Your task to perform on an android device: Open accessibility settings Image 0: 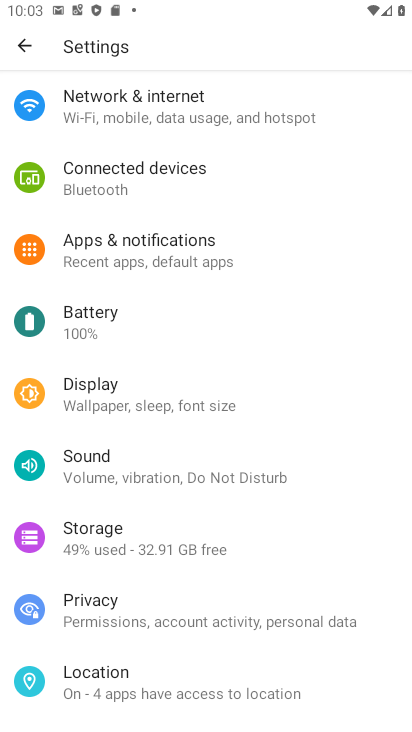
Step 0: drag from (166, 499) to (226, 205)
Your task to perform on an android device: Open accessibility settings Image 1: 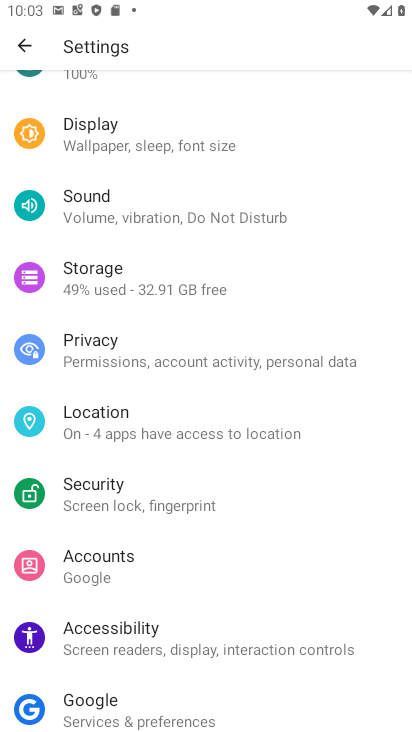
Step 1: click (113, 624)
Your task to perform on an android device: Open accessibility settings Image 2: 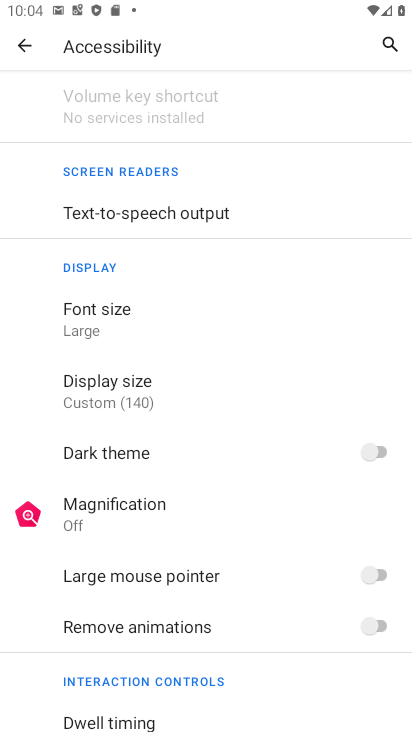
Step 2: task complete